Your task to perform on an android device: Open Maps and search for coffee Image 0: 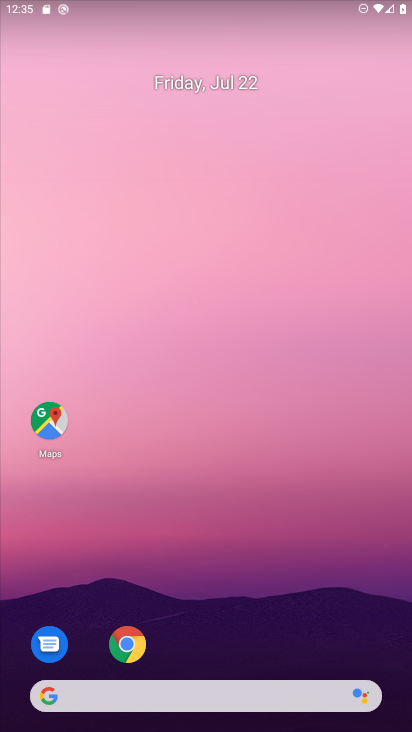
Step 0: click (47, 426)
Your task to perform on an android device: Open Maps and search for coffee Image 1: 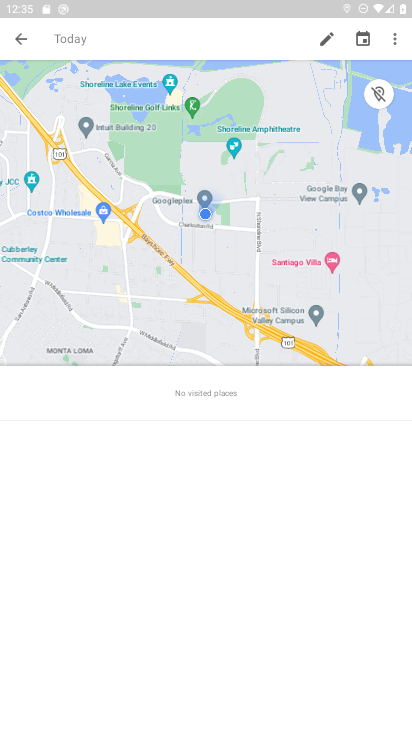
Step 1: click (28, 37)
Your task to perform on an android device: Open Maps and search for coffee Image 2: 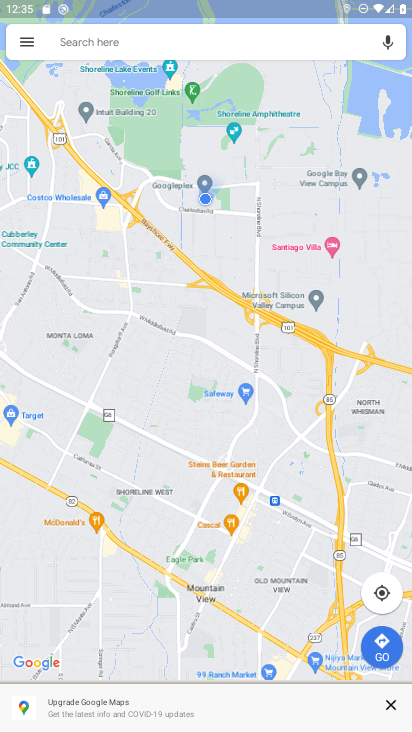
Step 2: click (178, 43)
Your task to perform on an android device: Open Maps and search for coffee Image 3: 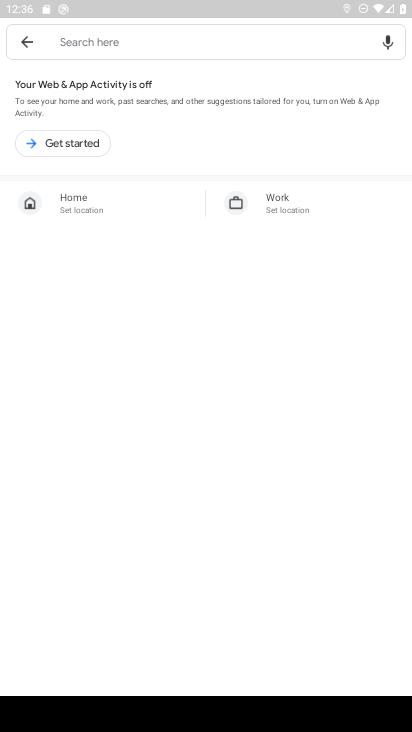
Step 3: type "coffee"
Your task to perform on an android device: Open Maps and search for coffee Image 4: 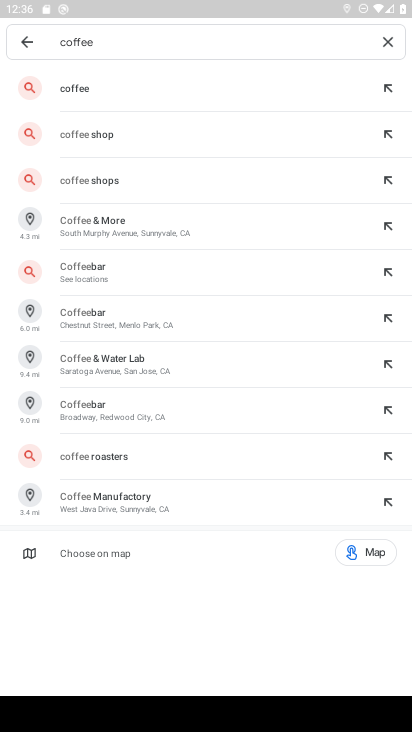
Step 4: click (114, 100)
Your task to perform on an android device: Open Maps and search for coffee Image 5: 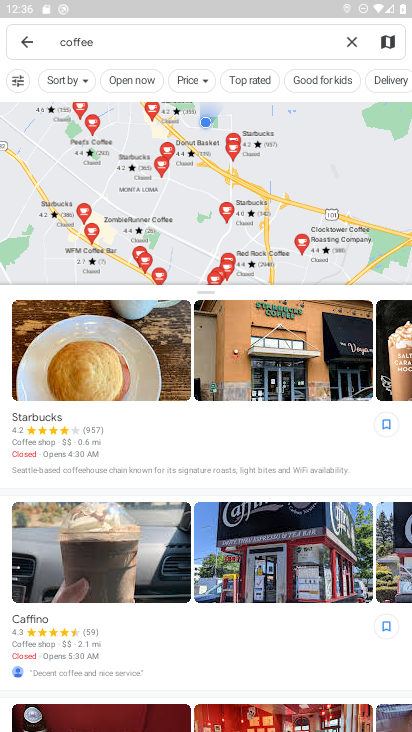
Step 5: task complete